Your task to perform on an android device: Open calendar and show me the first week of next month Image 0: 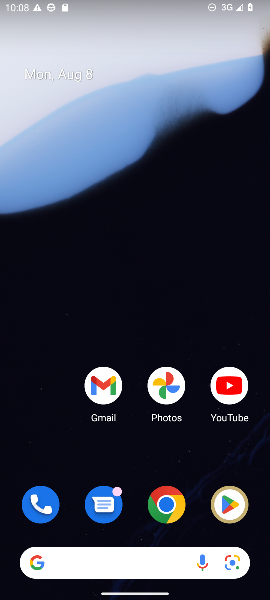
Step 0: drag from (140, 529) to (167, 44)
Your task to perform on an android device: Open calendar and show me the first week of next month Image 1: 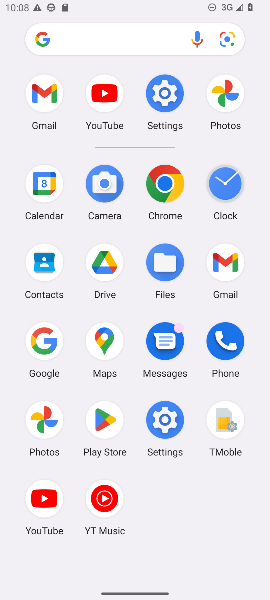
Step 1: click (46, 196)
Your task to perform on an android device: Open calendar and show me the first week of next month Image 2: 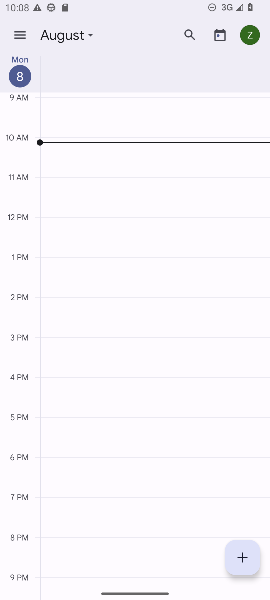
Step 2: click (24, 42)
Your task to perform on an android device: Open calendar and show me the first week of next month Image 3: 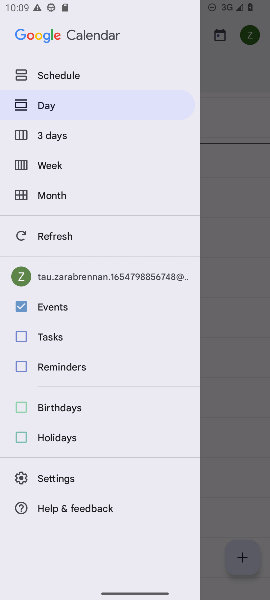
Step 3: click (54, 165)
Your task to perform on an android device: Open calendar and show me the first week of next month Image 4: 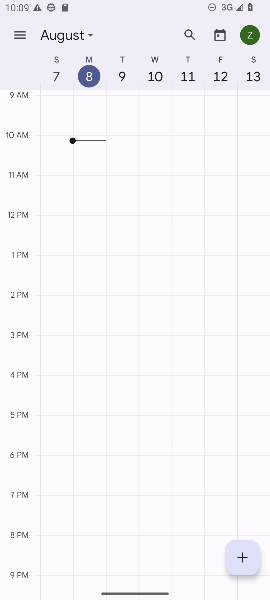
Step 4: task complete